Your task to perform on an android device: When is my next appointment? Image 0: 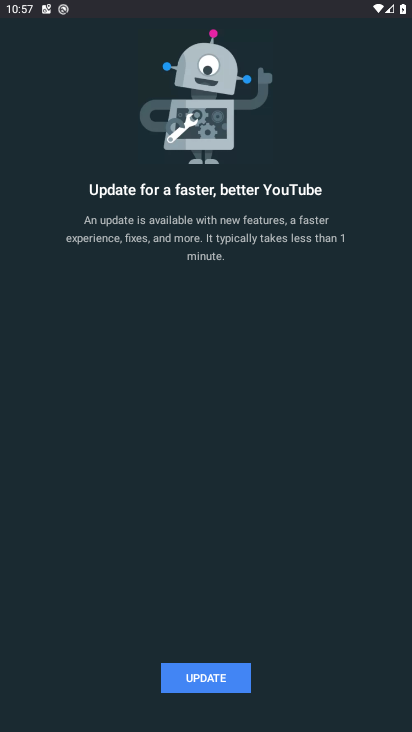
Step 0: press home button
Your task to perform on an android device: When is my next appointment? Image 1: 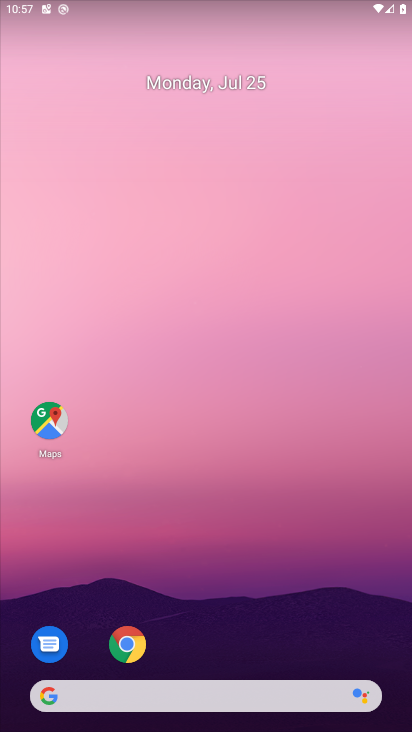
Step 1: drag from (212, 660) to (6, 43)
Your task to perform on an android device: When is my next appointment? Image 2: 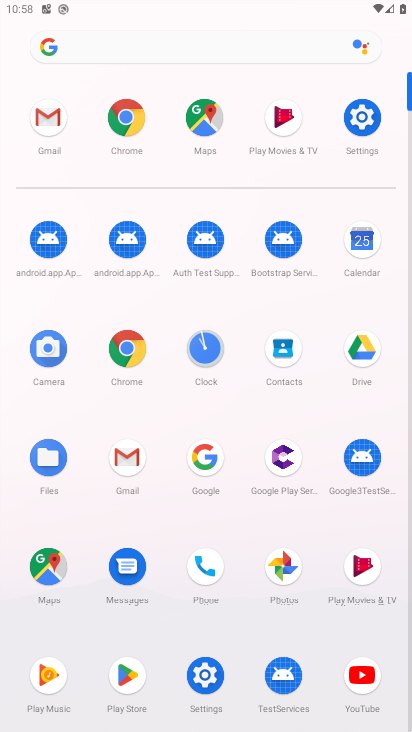
Step 2: click (329, 208)
Your task to perform on an android device: When is my next appointment? Image 3: 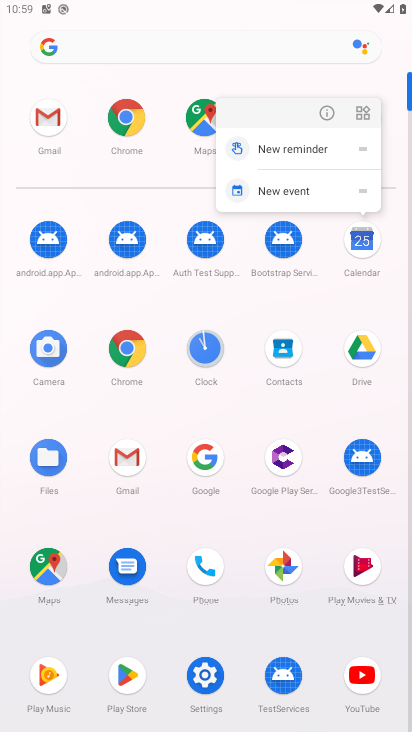
Step 3: click (409, 310)
Your task to perform on an android device: When is my next appointment? Image 4: 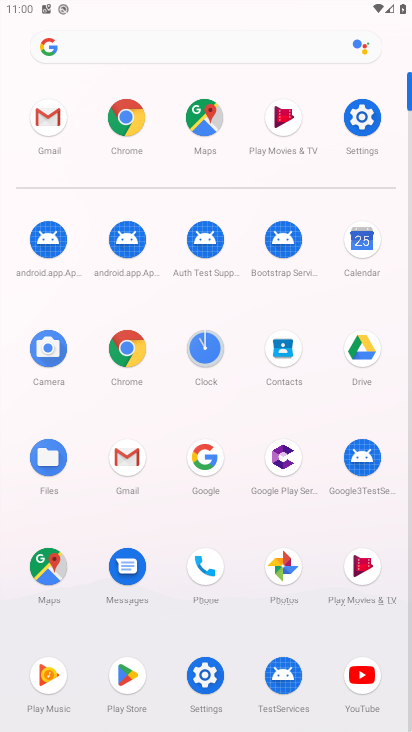
Step 4: click (383, 231)
Your task to perform on an android device: When is my next appointment? Image 5: 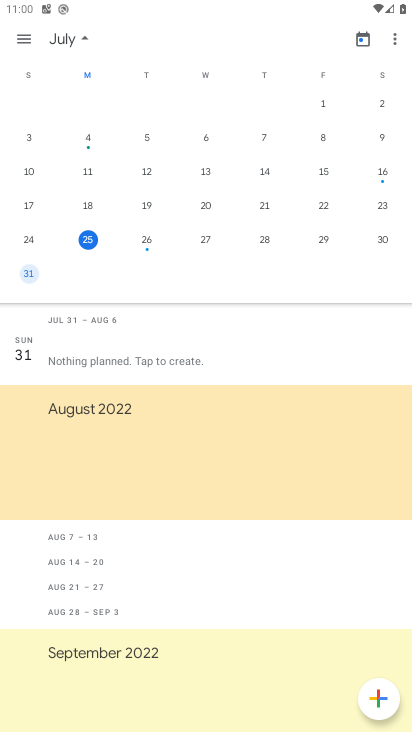
Step 5: click (163, 244)
Your task to perform on an android device: When is my next appointment? Image 6: 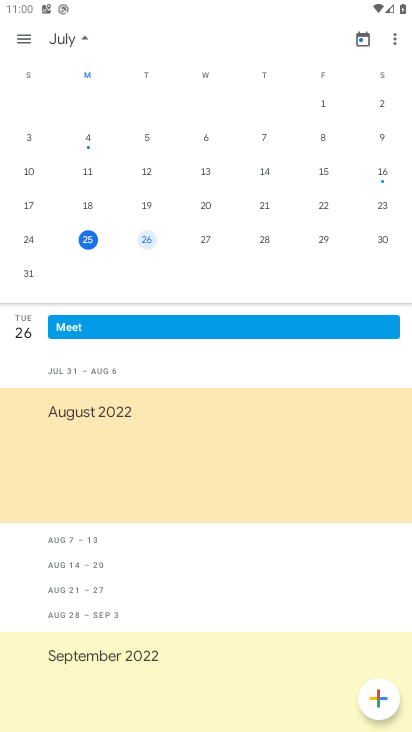
Step 6: click (75, 34)
Your task to perform on an android device: When is my next appointment? Image 7: 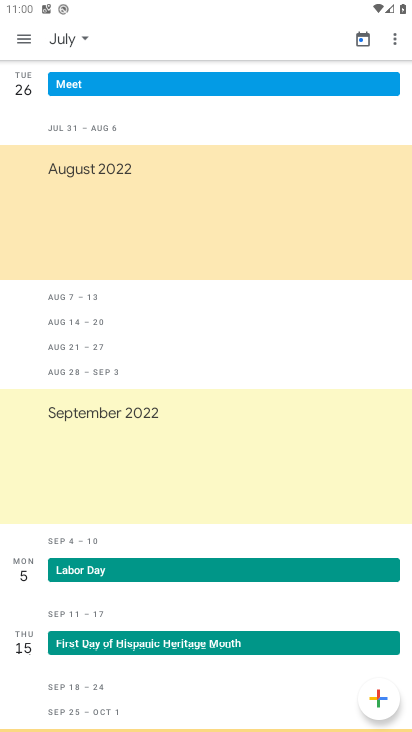
Step 7: task complete